Your task to perform on an android device: Open Google Maps Image 0: 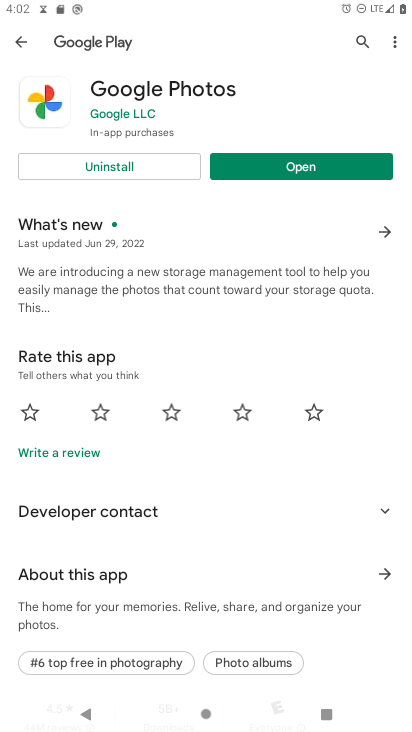
Step 0: press home button
Your task to perform on an android device: Open Google Maps Image 1: 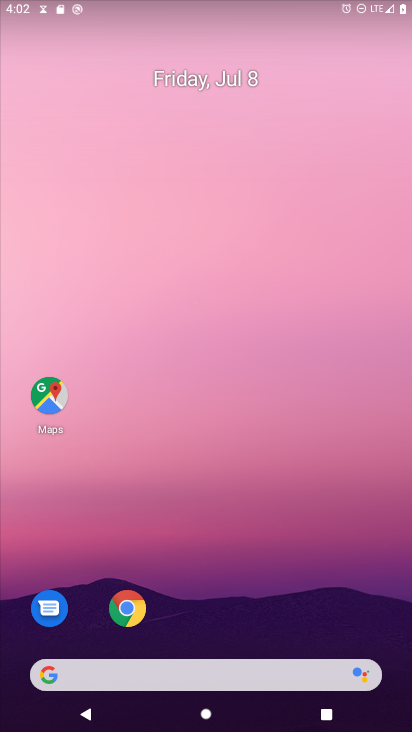
Step 1: drag from (262, 561) to (294, 5)
Your task to perform on an android device: Open Google Maps Image 2: 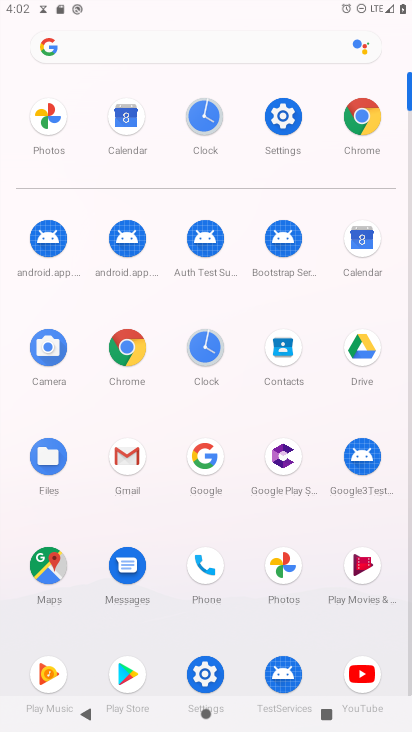
Step 2: click (58, 565)
Your task to perform on an android device: Open Google Maps Image 3: 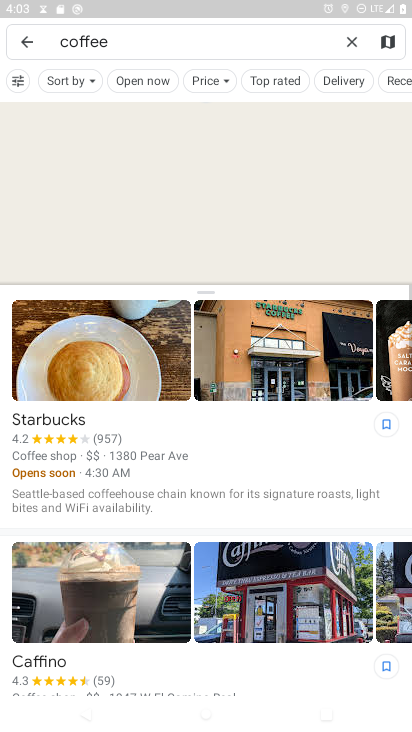
Step 3: task complete